Your task to perform on an android device: Open Yahoo.com Image 0: 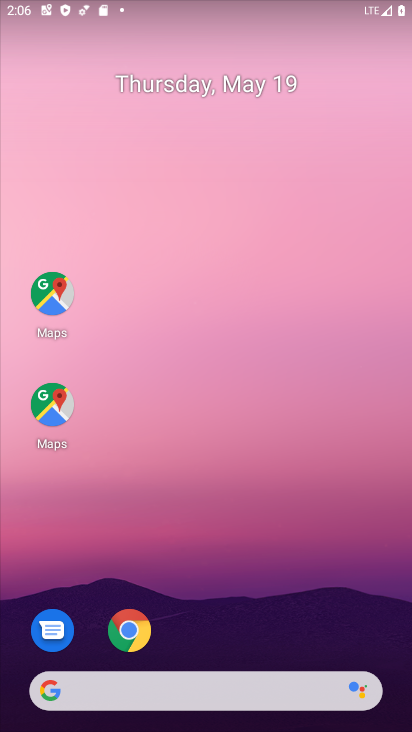
Step 0: drag from (267, 532) to (265, 55)
Your task to perform on an android device: Open Yahoo.com Image 1: 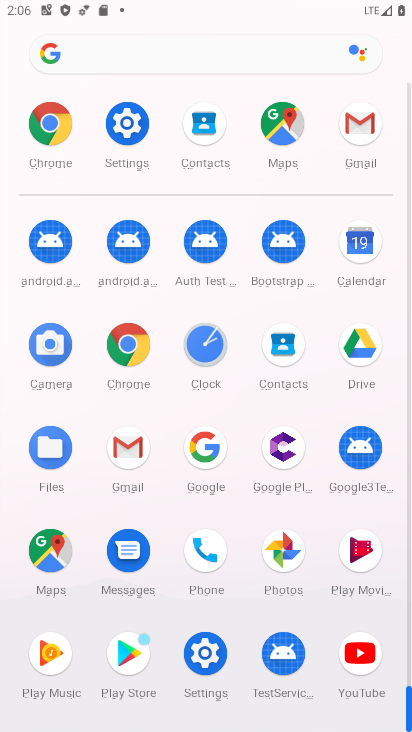
Step 1: drag from (9, 560) to (36, 283)
Your task to perform on an android device: Open Yahoo.com Image 2: 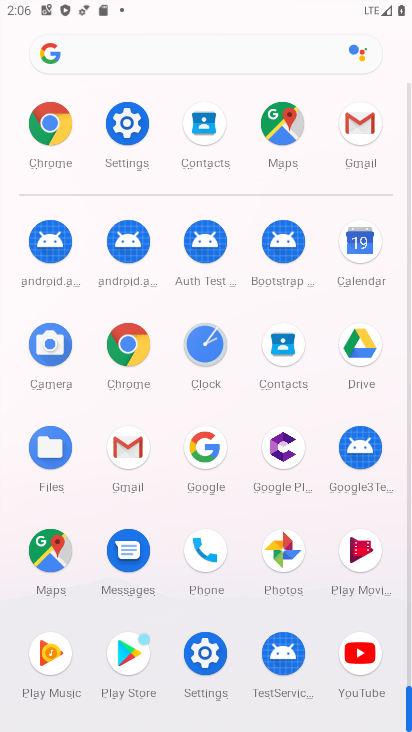
Step 2: click (123, 344)
Your task to perform on an android device: Open Yahoo.com Image 3: 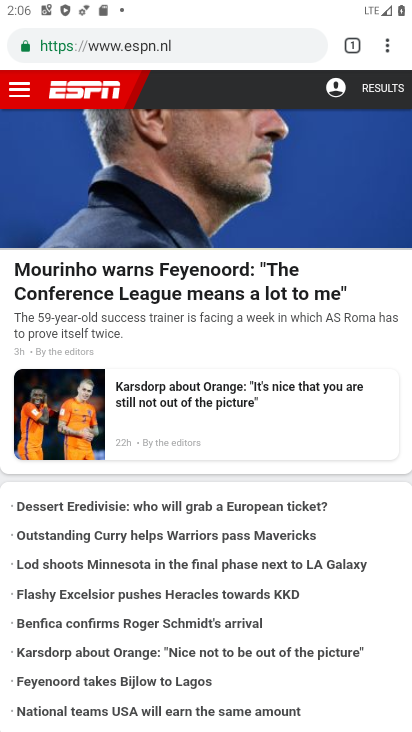
Step 3: drag from (222, 170) to (240, 470)
Your task to perform on an android device: Open Yahoo.com Image 4: 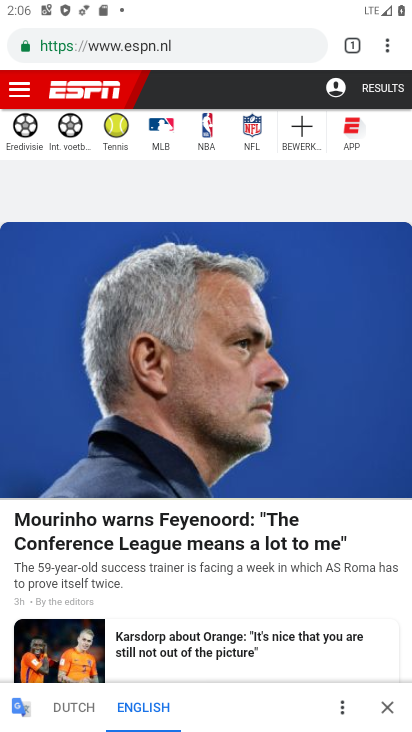
Step 4: click (136, 30)
Your task to perform on an android device: Open Yahoo.com Image 5: 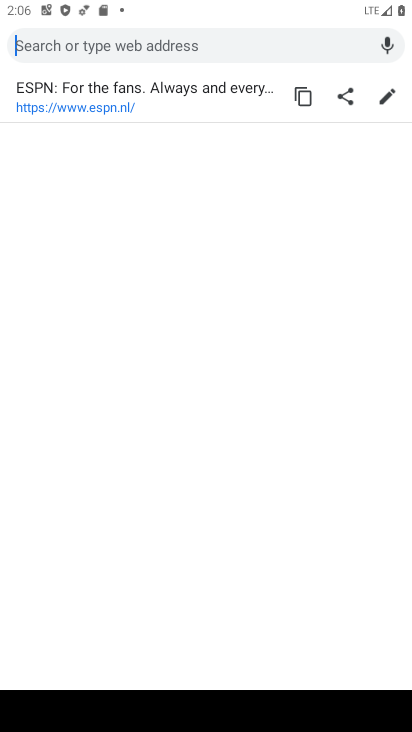
Step 5: type "Yahoo.com"
Your task to perform on an android device: Open Yahoo.com Image 6: 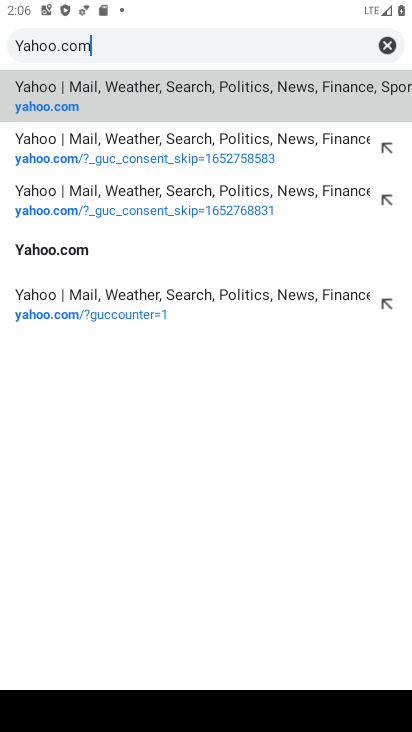
Step 6: type ""
Your task to perform on an android device: Open Yahoo.com Image 7: 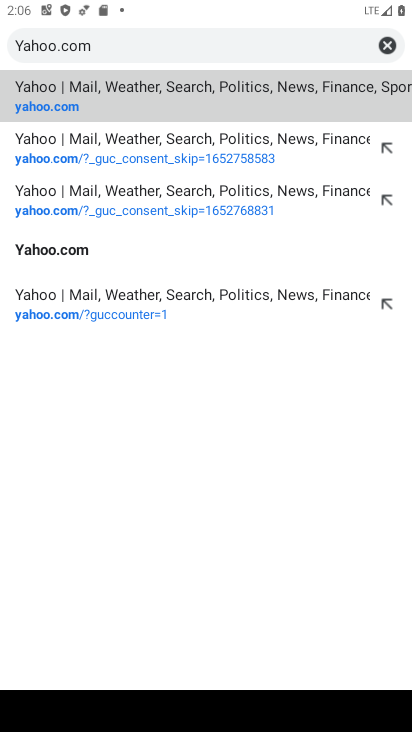
Step 7: click (166, 96)
Your task to perform on an android device: Open Yahoo.com Image 8: 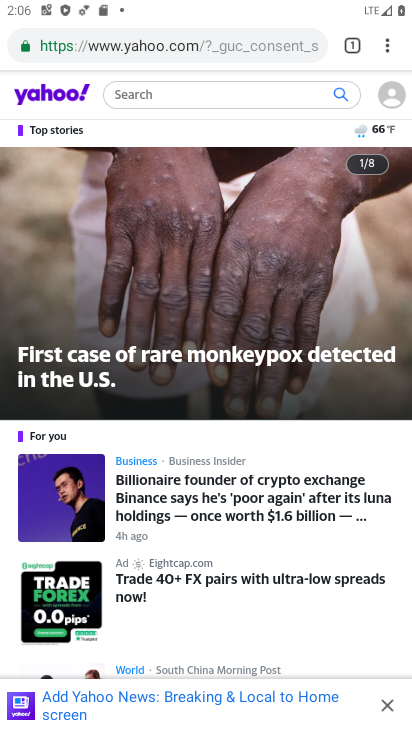
Step 8: task complete